Your task to perform on an android device: Open the phone app and click the voicemail tab. Image 0: 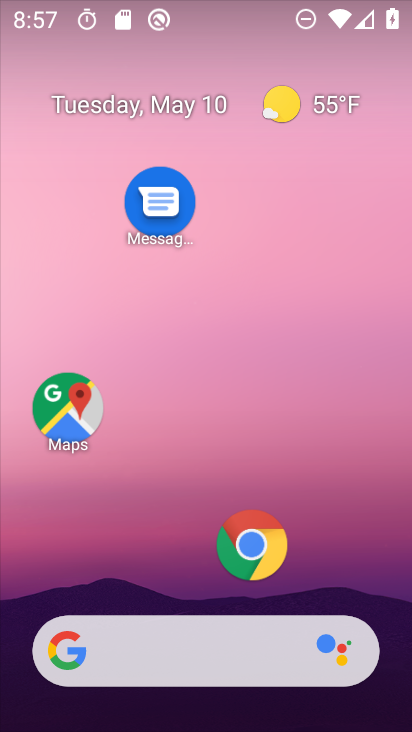
Step 0: drag from (166, 568) to (218, 14)
Your task to perform on an android device: Open the phone app and click the voicemail tab. Image 1: 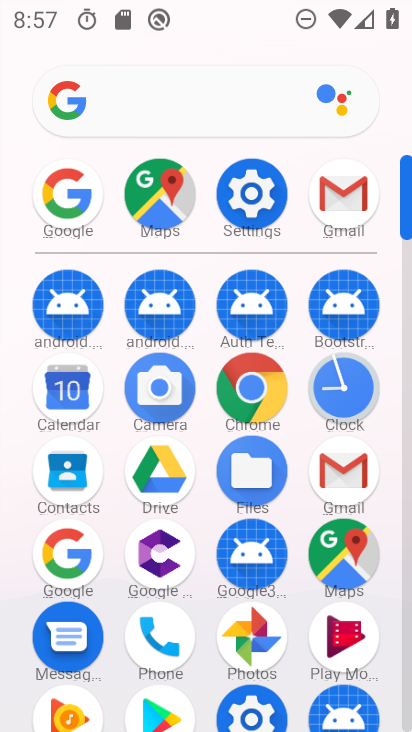
Step 1: click (149, 644)
Your task to perform on an android device: Open the phone app and click the voicemail tab. Image 2: 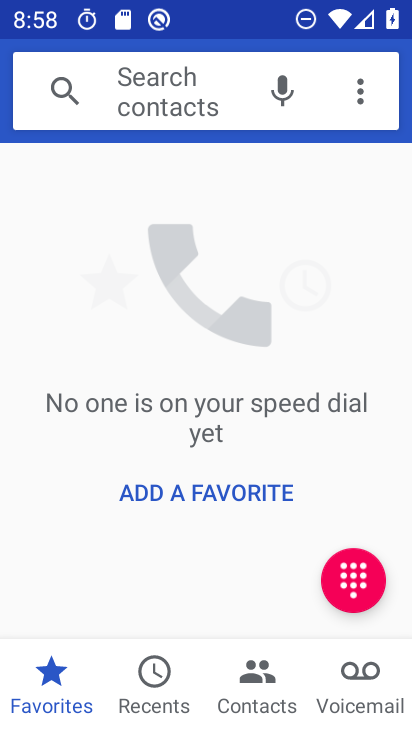
Step 2: click (334, 661)
Your task to perform on an android device: Open the phone app and click the voicemail tab. Image 3: 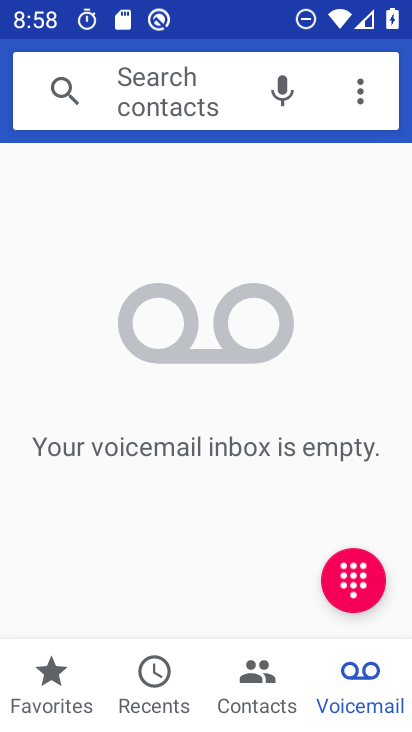
Step 3: task complete